Your task to perform on an android device: Search for the top rated book on goodreads. Image 0: 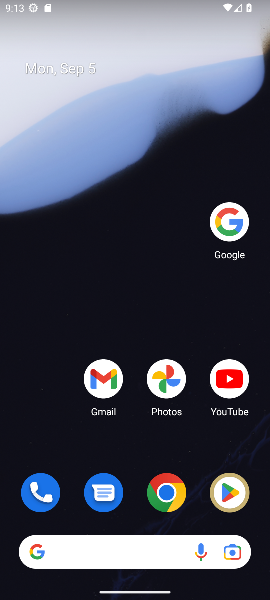
Step 0: click (234, 221)
Your task to perform on an android device: Search for the top rated book on goodreads. Image 1: 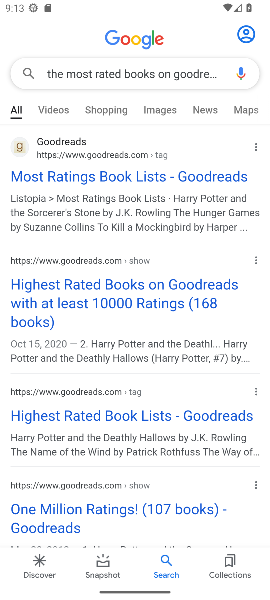
Step 1: click (175, 62)
Your task to perform on an android device: Search for the top rated book on goodreads. Image 2: 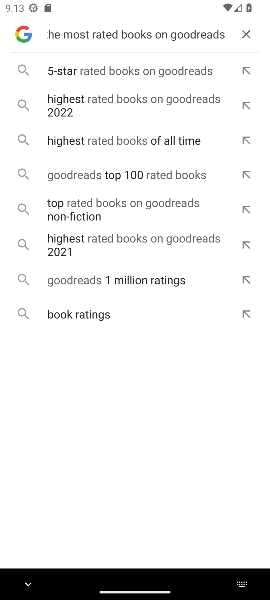
Step 2: click (244, 34)
Your task to perform on an android device: Search for the top rated book on goodreads. Image 3: 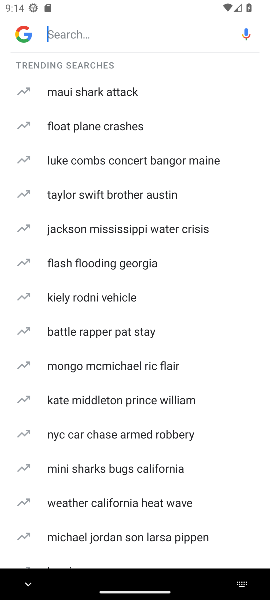
Step 3: click (107, 36)
Your task to perform on an android device: Search for the top rated book on goodreads. Image 4: 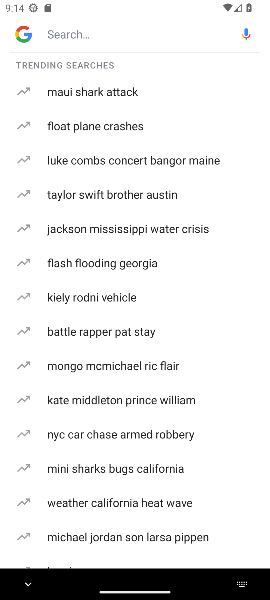
Step 4: type "the top rated book on goodreads "
Your task to perform on an android device: Search for the top rated book on goodreads. Image 5: 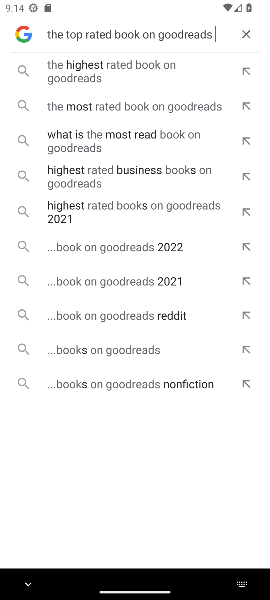
Step 5: click (98, 61)
Your task to perform on an android device: Search for the top rated book on goodreads. Image 6: 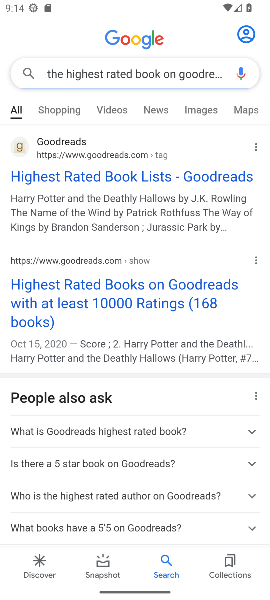
Step 6: click (93, 176)
Your task to perform on an android device: Search for the top rated book on goodreads. Image 7: 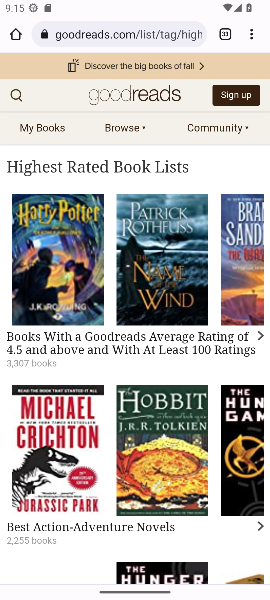
Step 7: task complete